Your task to perform on an android device: visit the assistant section in the google photos Image 0: 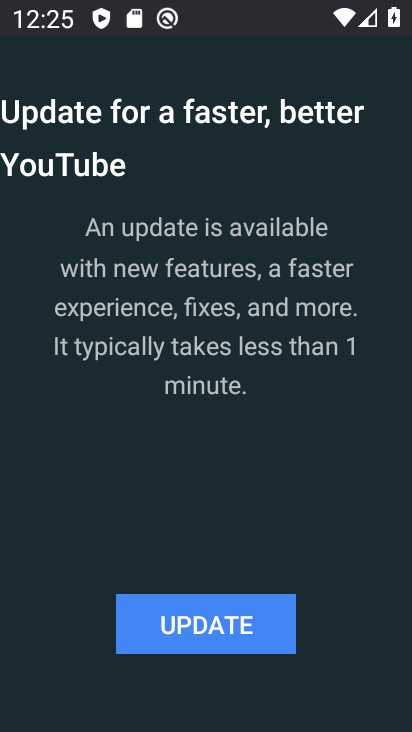
Step 0: press home button
Your task to perform on an android device: visit the assistant section in the google photos Image 1: 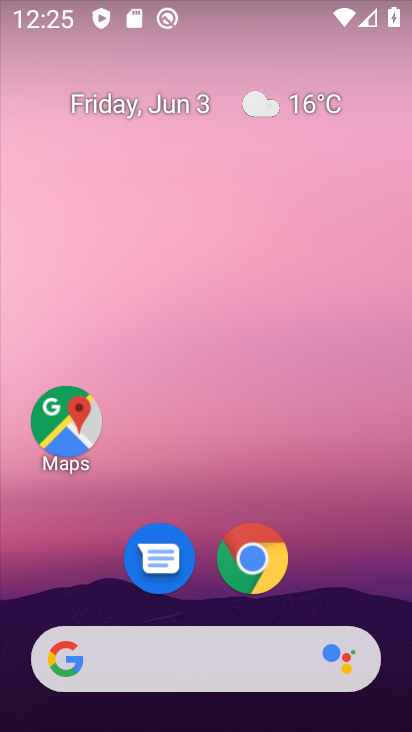
Step 1: drag from (351, 584) to (363, 235)
Your task to perform on an android device: visit the assistant section in the google photos Image 2: 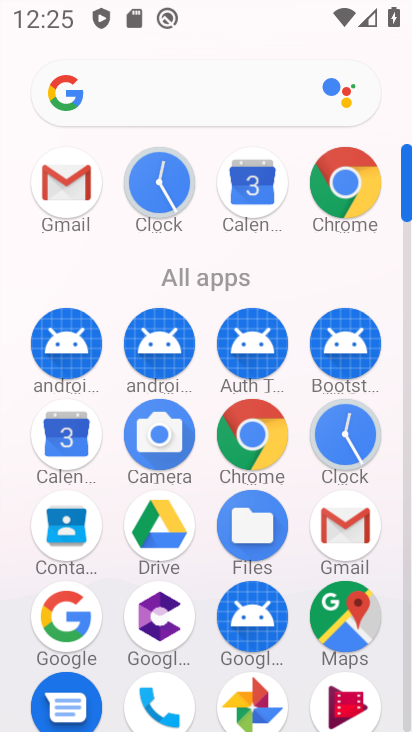
Step 2: drag from (388, 556) to (410, 270)
Your task to perform on an android device: visit the assistant section in the google photos Image 3: 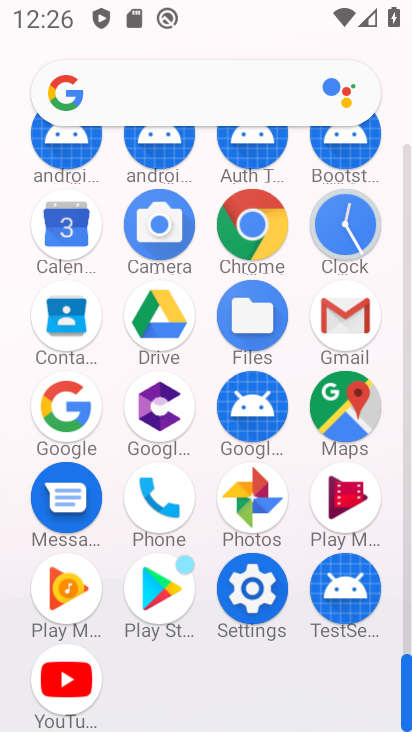
Step 3: click (249, 501)
Your task to perform on an android device: visit the assistant section in the google photos Image 4: 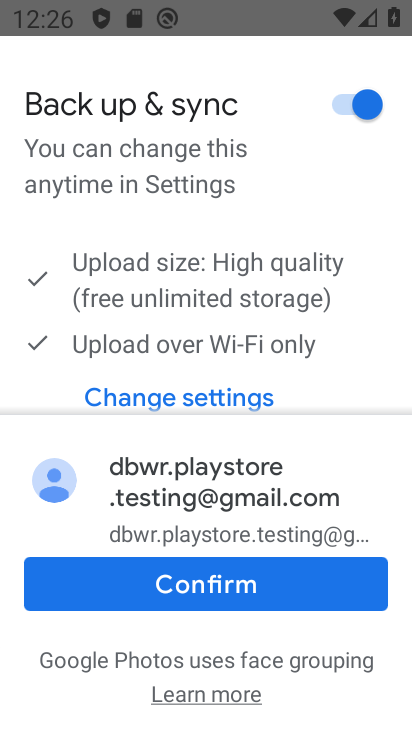
Step 4: click (250, 595)
Your task to perform on an android device: visit the assistant section in the google photos Image 5: 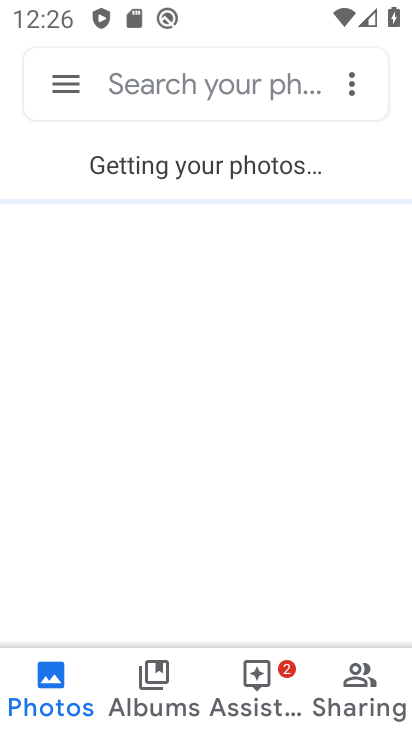
Step 5: click (248, 676)
Your task to perform on an android device: visit the assistant section in the google photos Image 6: 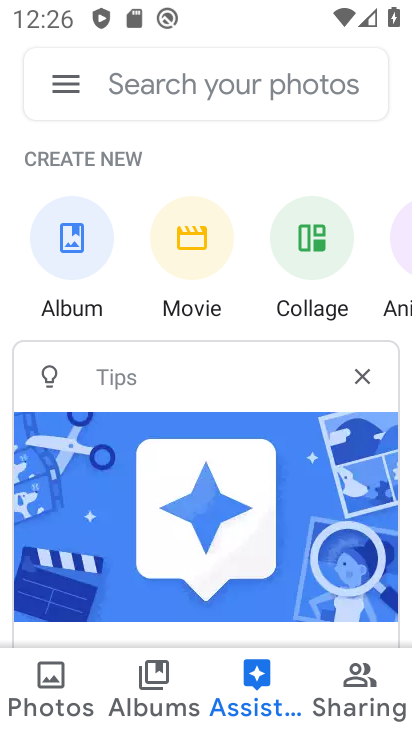
Step 6: task complete